Your task to perform on an android device: toggle javascript in the chrome app Image 0: 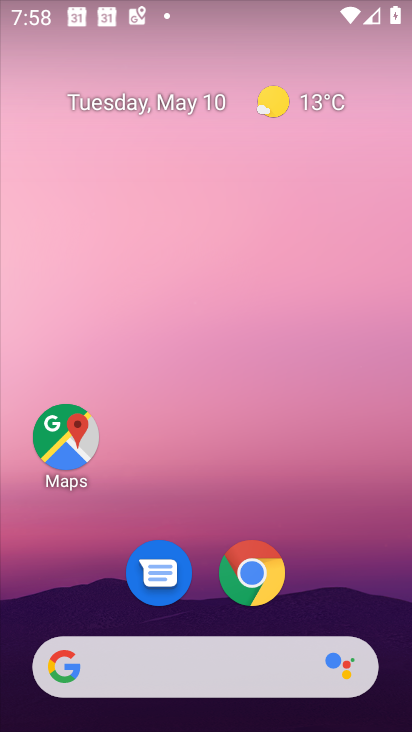
Step 0: click (266, 573)
Your task to perform on an android device: toggle javascript in the chrome app Image 1: 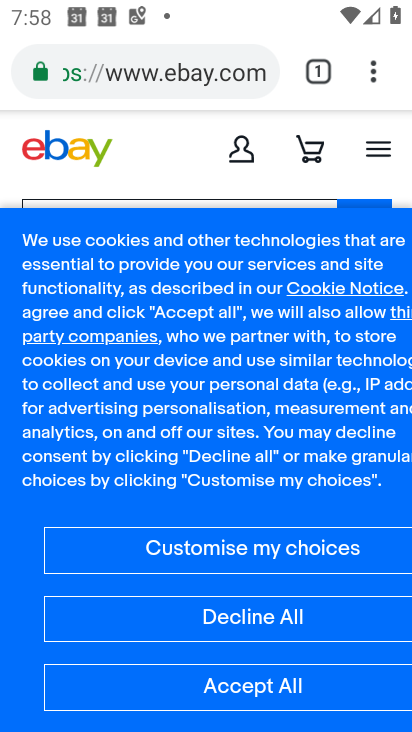
Step 1: click (374, 72)
Your task to perform on an android device: toggle javascript in the chrome app Image 2: 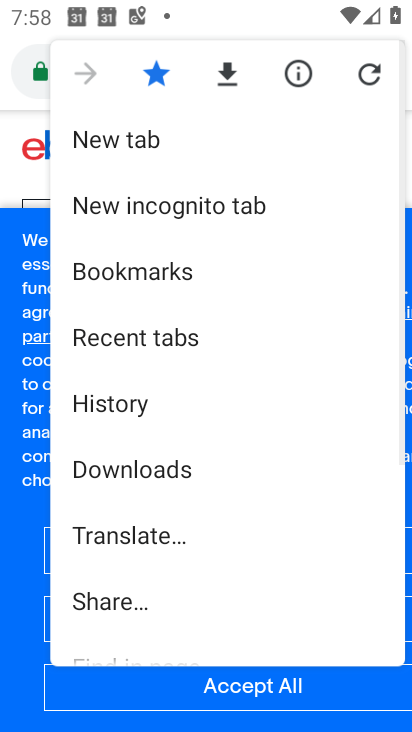
Step 2: drag from (256, 581) to (264, 146)
Your task to perform on an android device: toggle javascript in the chrome app Image 3: 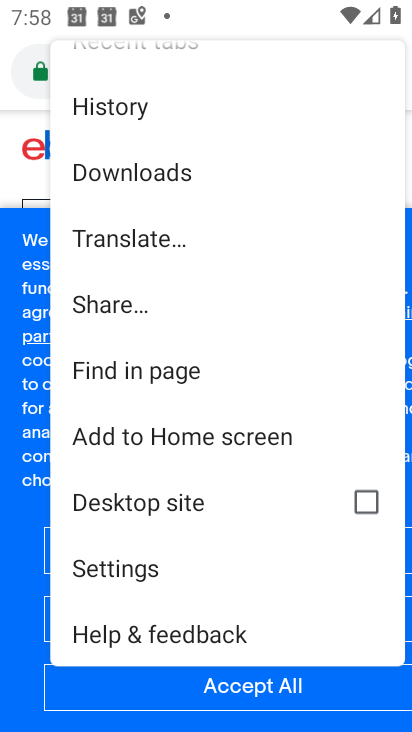
Step 3: click (130, 564)
Your task to perform on an android device: toggle javascript in the chrome app Image 4: 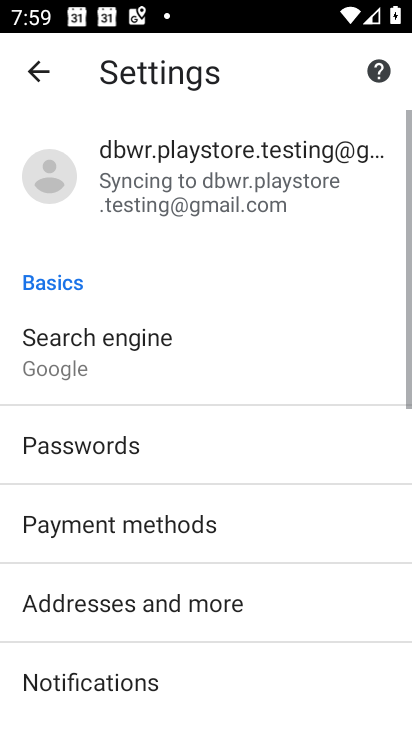
Step 4: drag from (241, 571) to (229, 139)
Your task to perform on an android device: toggle javascript in the chrome app Image 5: 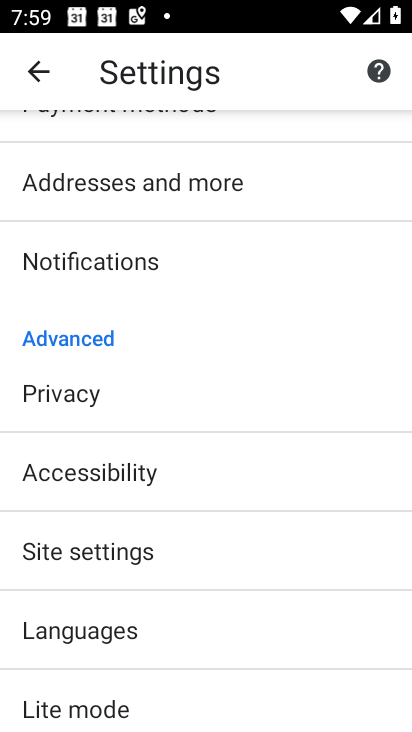
Step 5: drag from (155, 534) to (183, 224)
Your task to perform on an android device: toggle javascript in the chrome app Image 6: 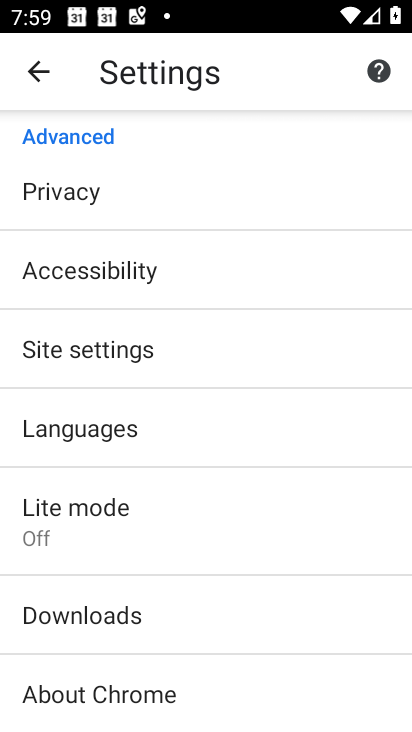
Step 6: click (104, 352)
Your task to perform on an android device: toggle javascript in the chrome app Image 7: 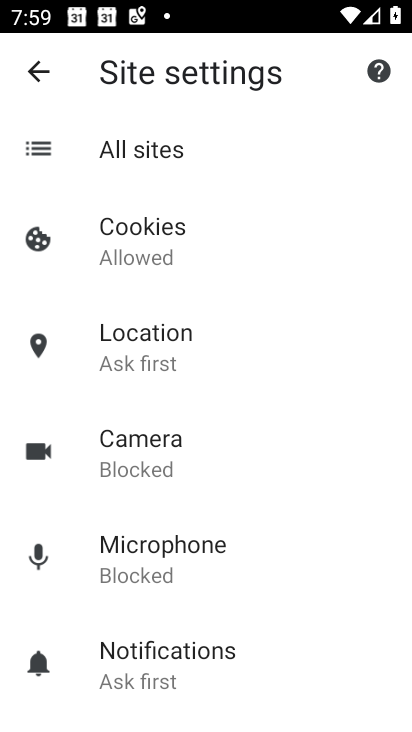
Step 7: drag from (269, 641) to (281, 411)
Your task to perform on an android device: toggle javascript in the chrome app Image 8: 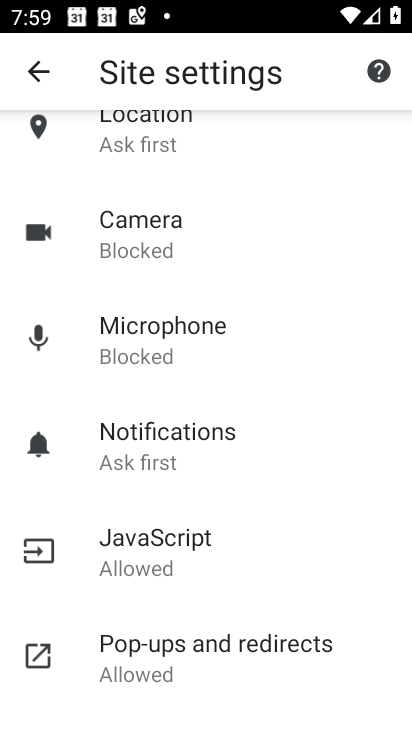
Step 8: click (159, 550)
Your task to perform on an android device: toggle javascript in the chrome app Image 9: 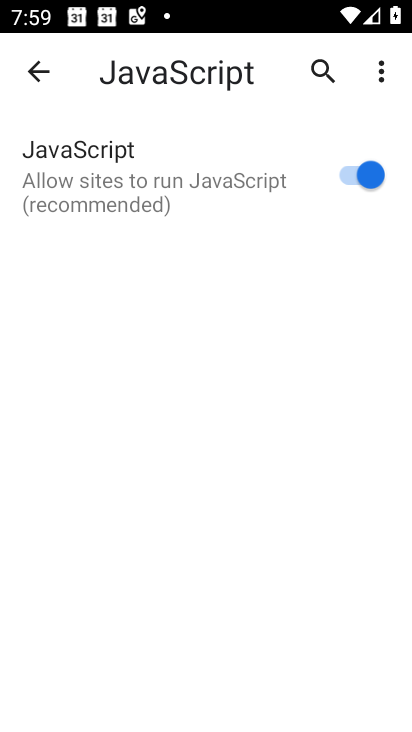
Step 9: click (345, 171)
Your task to perform on an android device: toggle javascript in the chrome app Image 10: 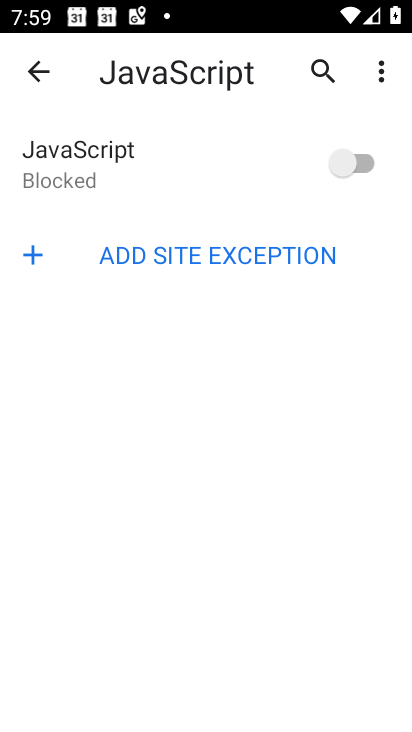
Step 10: task complete